Your task to perform on an android device: Open Google Chrome Image 0: 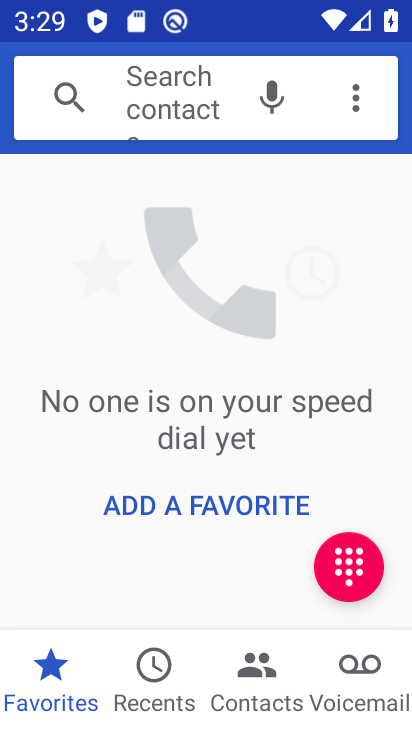
Step 0: press home button
Your task to perform on an android device: Open Google Chrome Image 1: 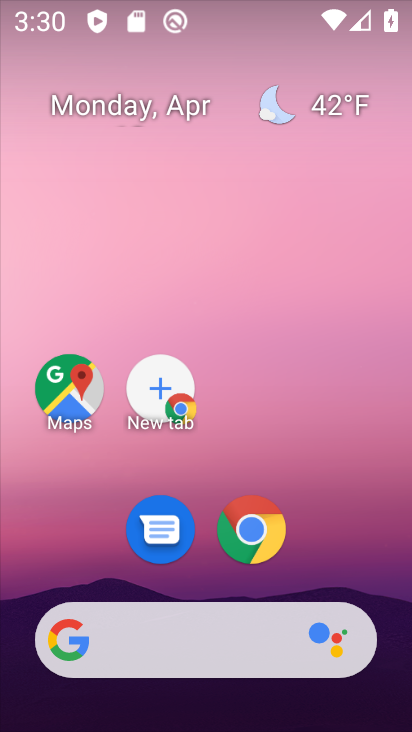
Step 1: click (256, 526)
Your task to perform on an android device: Open Google Chrome Image 2: 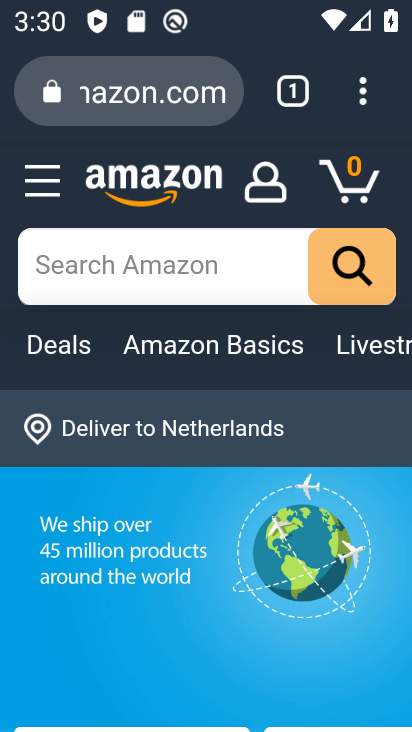
Step 2: task complete